Your task to perform on an android device: clear history in the chrome app Image 0: 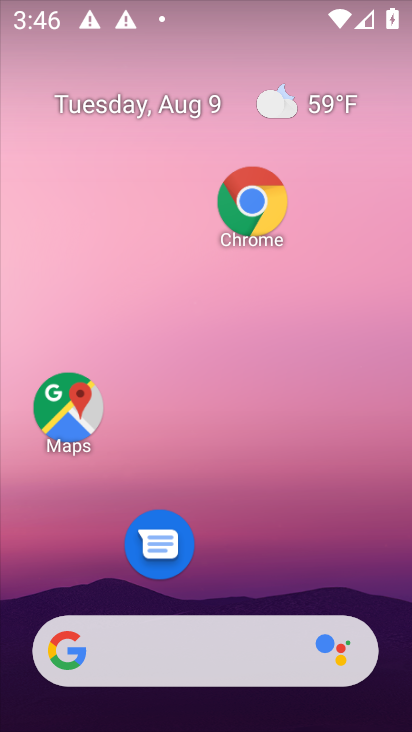
Step 0: drag from (177, 181) to (171, 144)
Your task to perform on an android device: clear history in the chrome app Image 1: 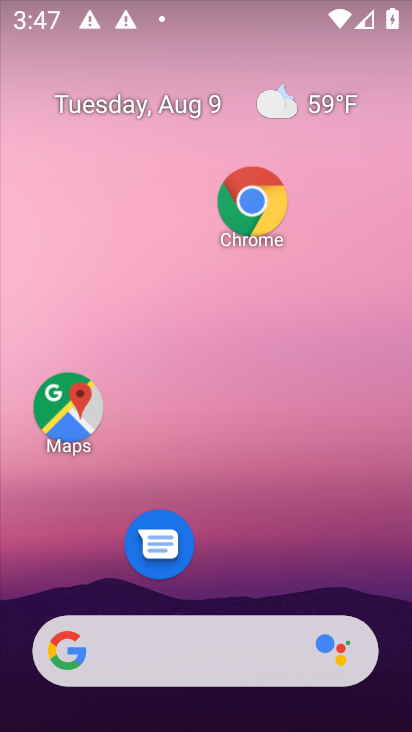
Step 1: drag from (169, 624) to (179, 129)
Your task to perform on an android device: clear history in the chrome app Image 2: 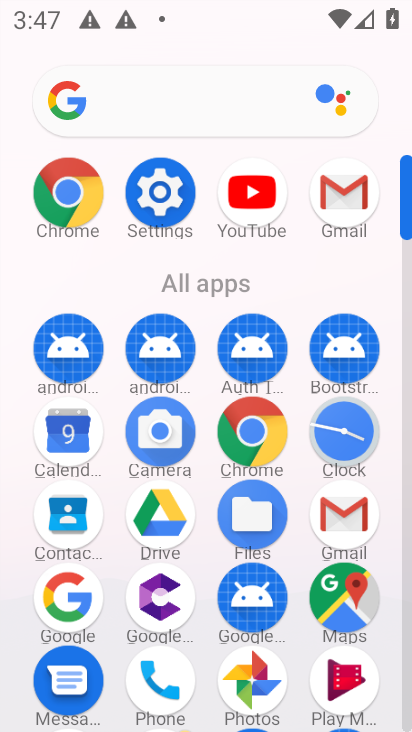
Step 2: click (65, 183)
Your task to perform on an android device: clear history in the chrome app Image 3: 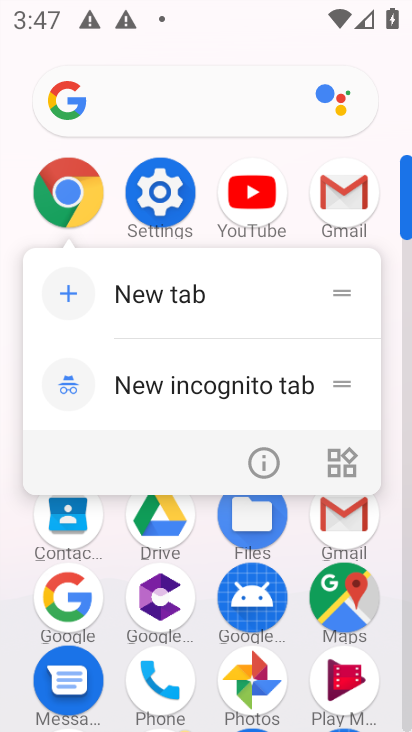
Step 3: click (59, 208)
Your task to perform on an android device: clear history in the chrome app Image 4: 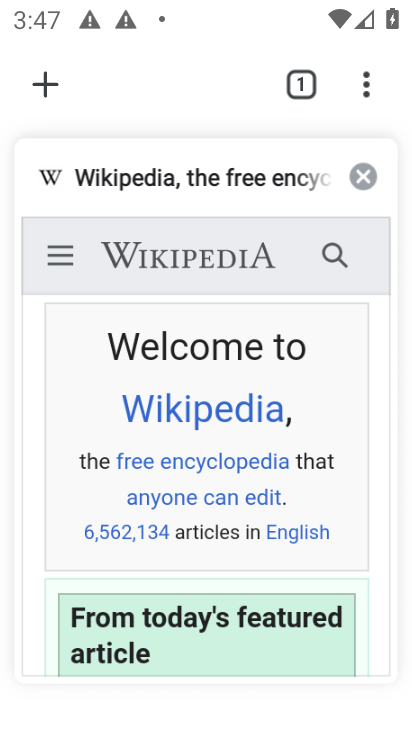
Step 4: click (366, 95)
Your task to perform on an android device: clear history in the chrome app Image 5: 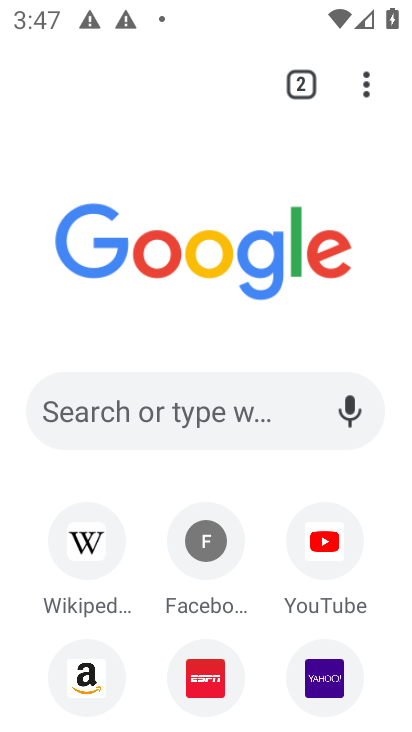
Step 5: click (363, 84)
Your task to perform on an android device: clear history in the chrome app Image 6: 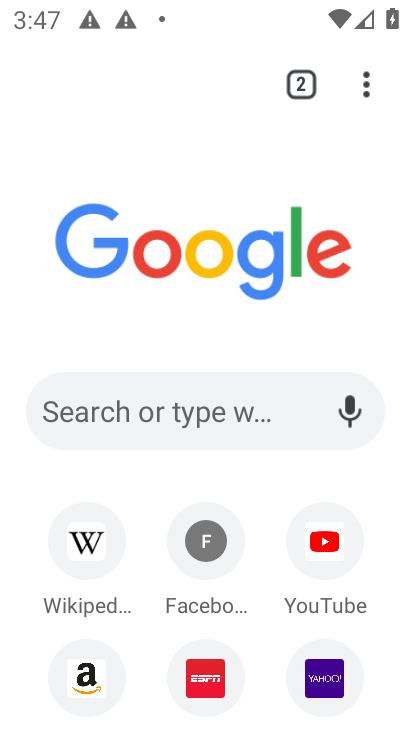
Step 6: click (369, 91)
Your task to perform on an android device: clear history in the chrome app Image 7: 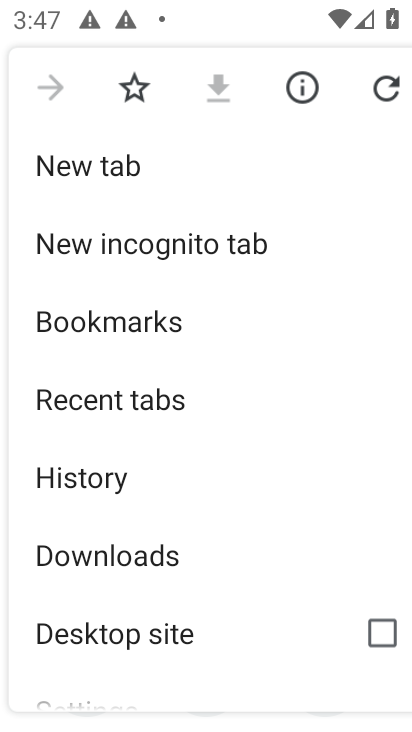
Step 7: click (99, 477)
Your task to perform on an android device: clear history in the chrome app Image 8: 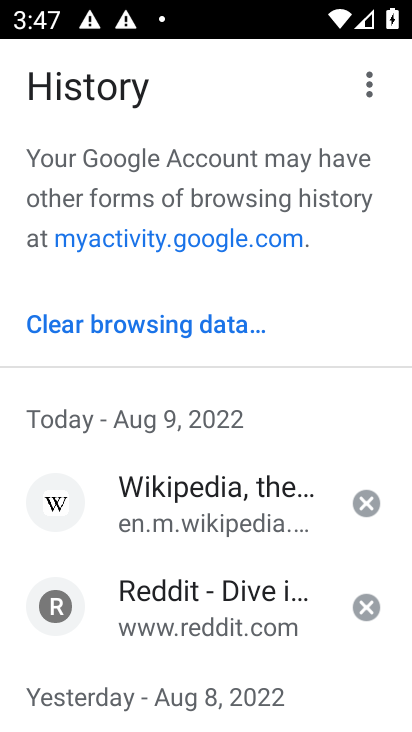
Step 8: click (157, 330)
Your task to perform on an android device: clear history in the chrome app Image 9: 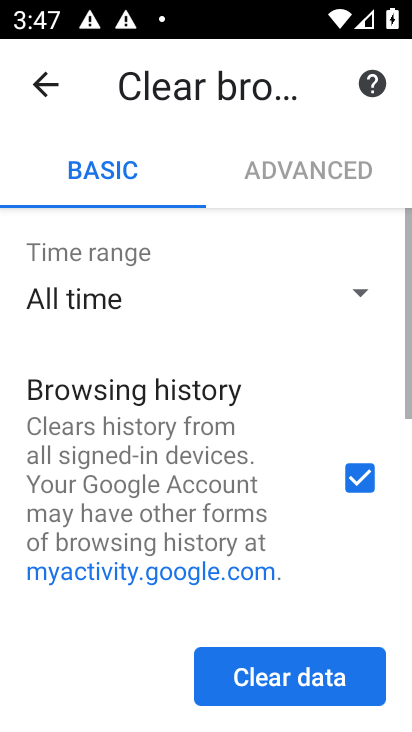
Step 9: click (222, 665)
Your task to perform on an android device: clear history in the chrome app Image 10: 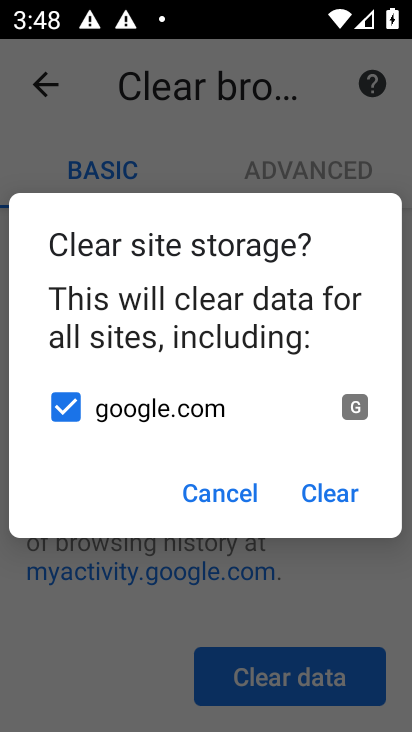
Step 10: click (308, 487)
Your task to perform on an android device: clear history in the chrome app Image 11: 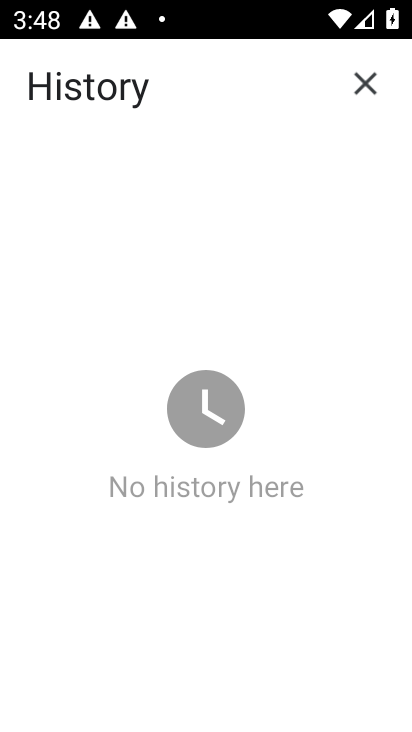
Step 11: task complete